Your task to perform on an android device: Check the news Image 0: 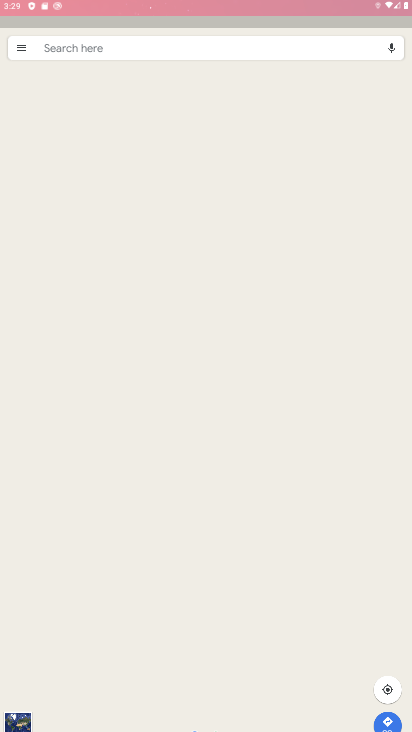
Step 0: click (259, 151)
Your task to perform on an android device: Check the news Image 1: 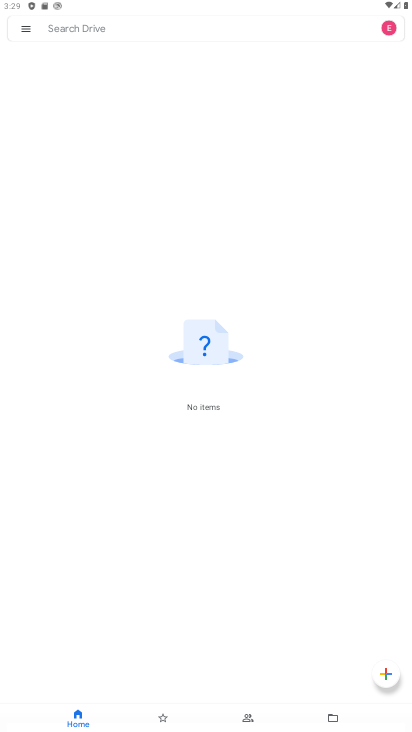
Step 1: press home button
Your task to perform on an android device: Check the news Image 2: 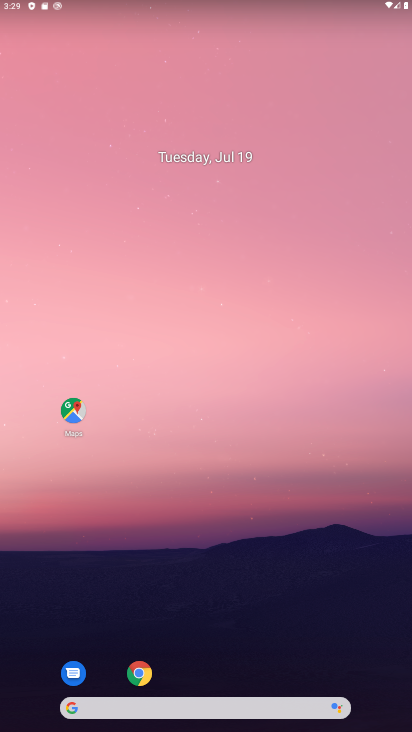
Step 2: drag from (289, 632) to (269, 87)
Your task to perform on an android device: Check the news Image 3: 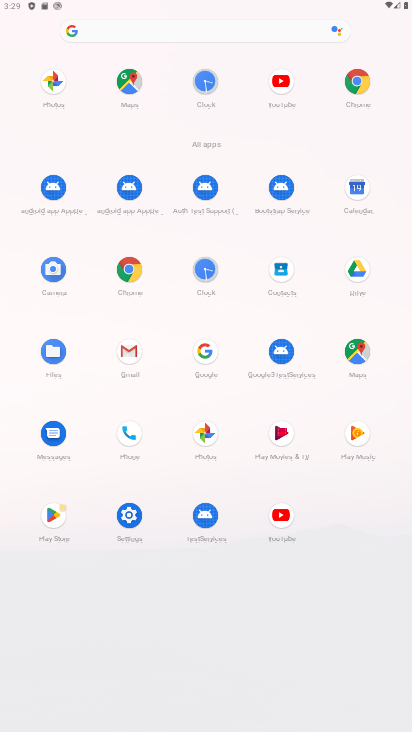
Step 3: click (356, 80)
Your task to perform on an android device: Check the news Image 4: 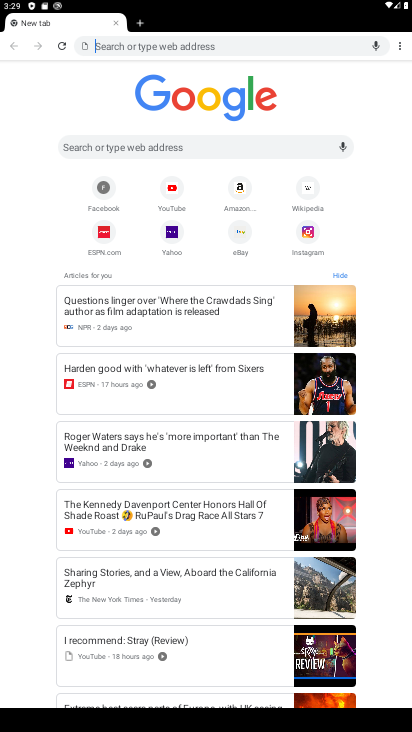
Step 4: click (209, 36)
Your task to perform on an android device: Check the news Image 5: 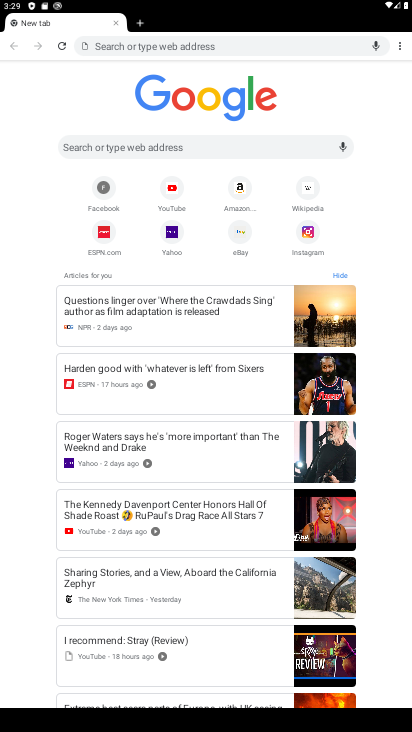
Step 5: type "news"
Your task to perform on an android device: Check the news Image 6: 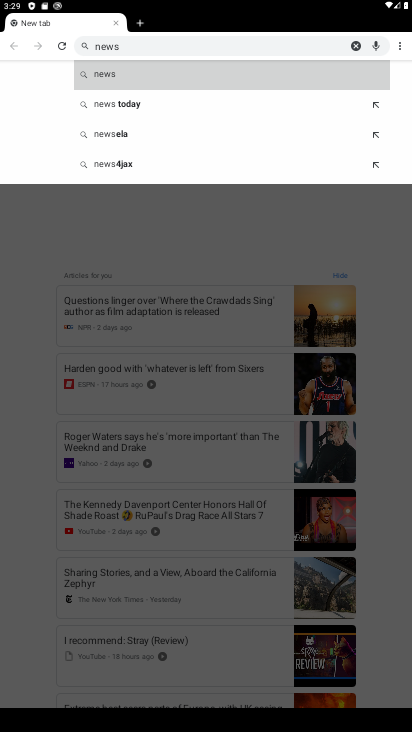
Step 6: click (107, 74)
Your task to perform on an android device: Check the news Image 7: 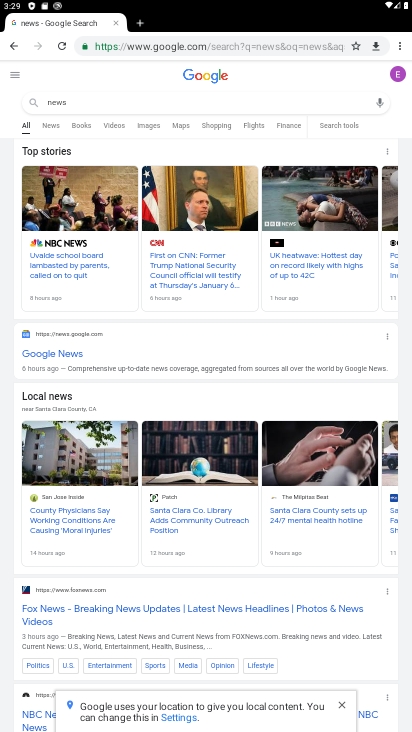
Step 7: click (59, 353)
Your task to perform on an android device: Check the news Image 8: 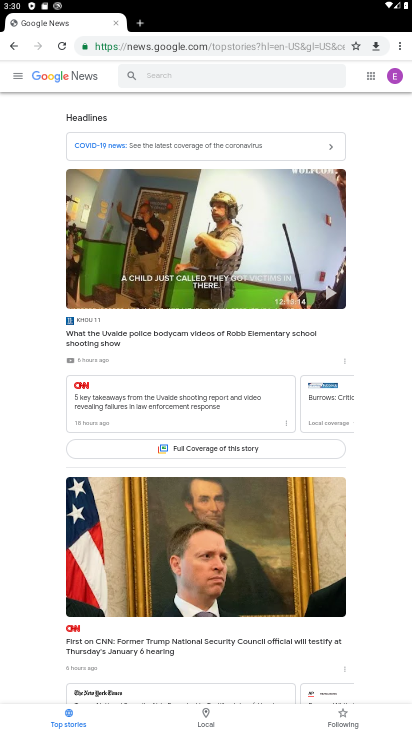
Step 8: task complete